Your task to perform on an android device: Play the last video I watched on Youtube Image 0: 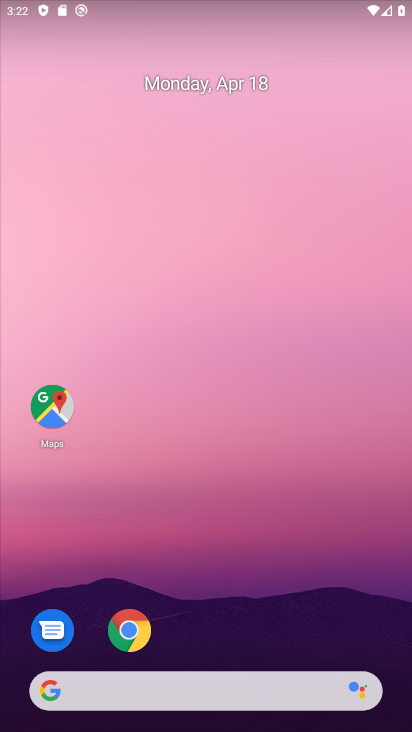
Step 0: drag from (198, 658) to (297, 158)
Your task to perform on an android device: Play the last video I watched on Youtube Image 1: 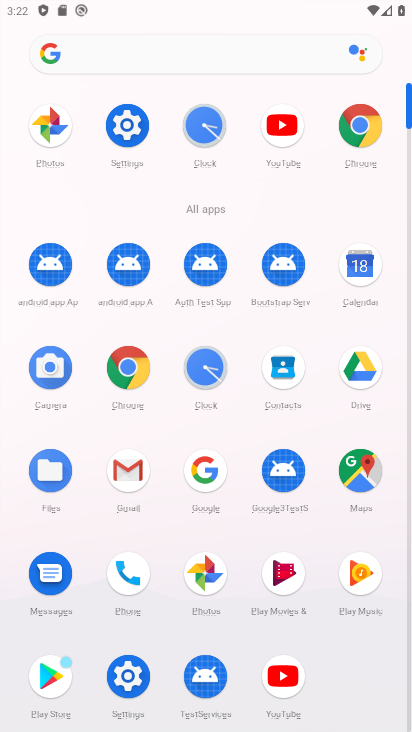
Step 1: click (280, 664)
Your task to perform on an android device: Play the last video I watched on Youtube Image 2: 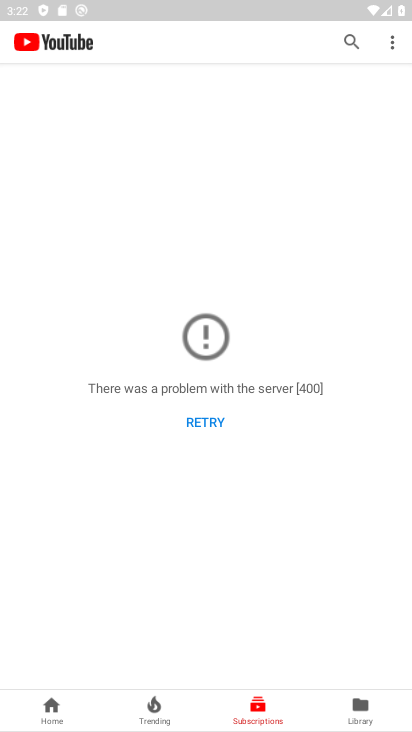
Step 2: click (363, 705)
Your task to perform on an android device: Play the last video I watched on Youtube Image 3: 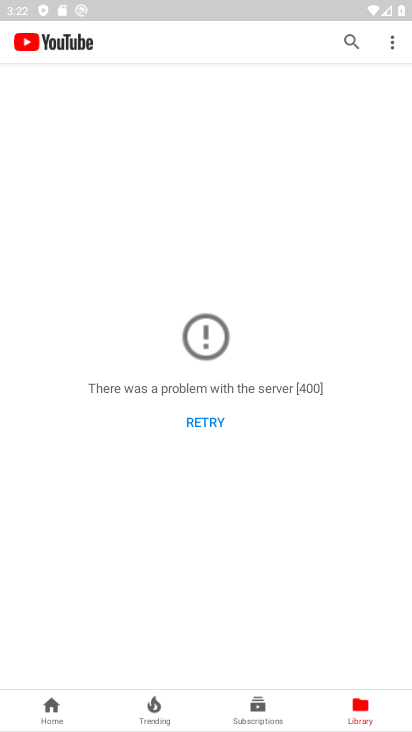
Step 3: task complete